Your task to perform on an android device: move a message to another label in the gmail app Image 0: 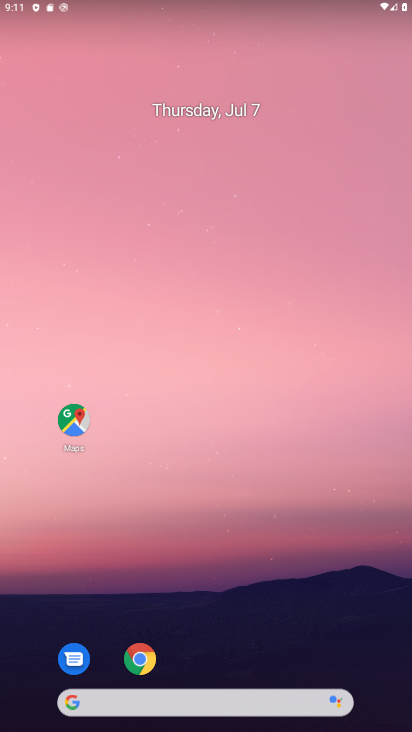
Step 0: drag from (250, 556) to (319, 6)
Your task to perform on an android device: move a message to another label in the gmail app Image 1: 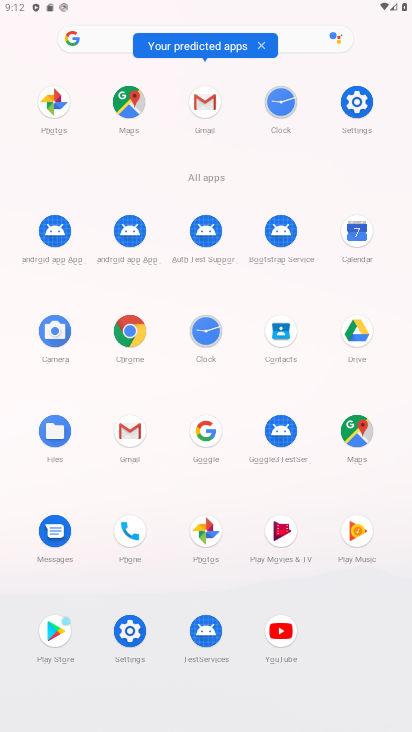
Step 1: click (207, 112)
Your task to perform on an android device: move a message to another label in the gmail app Image 2: 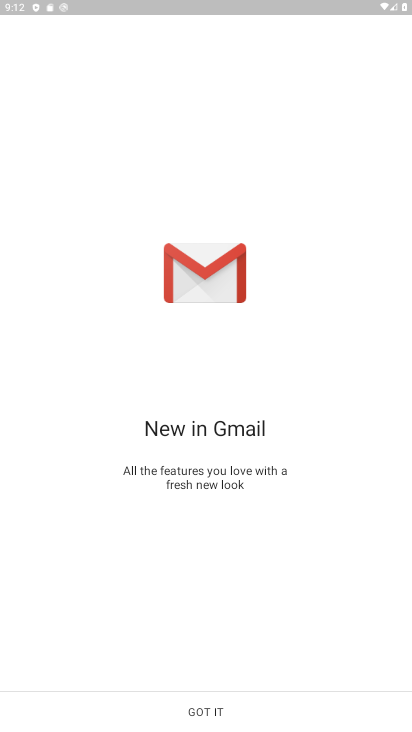
Step 2: click (258, 707)
Your task to perform on an android device: move a message to another label in the gmail app Image 3: 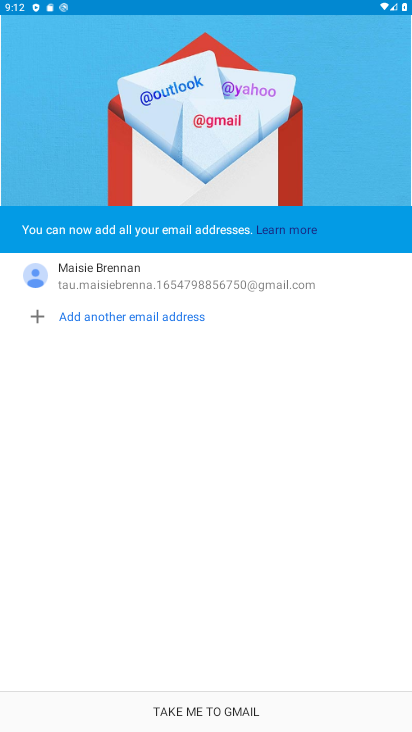
Step 3: click (258, 707)
Your task to perform on an android device: move a message to another label in the gmail app Image 4: 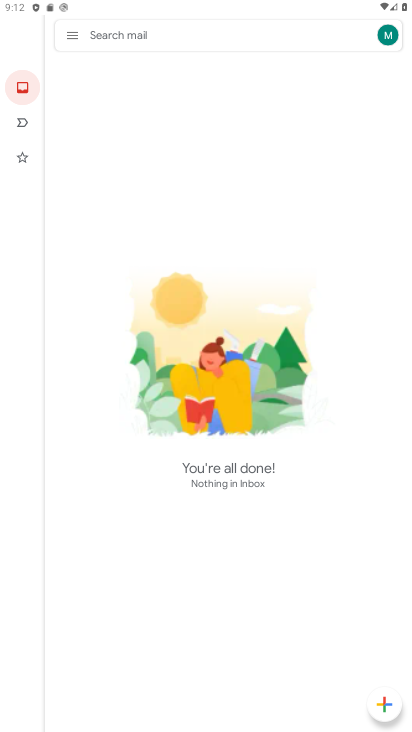
Step 4: click (70, 39)
Your task to perform on an android device: move a message to another label in the gmail app Image 5: 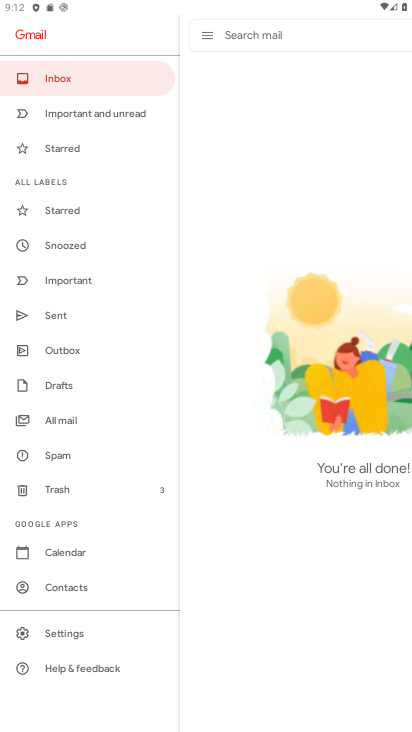
Step 5: click (81, 420)
Your task to perform on an android device: move a message to another label in the gmail app Image 6: 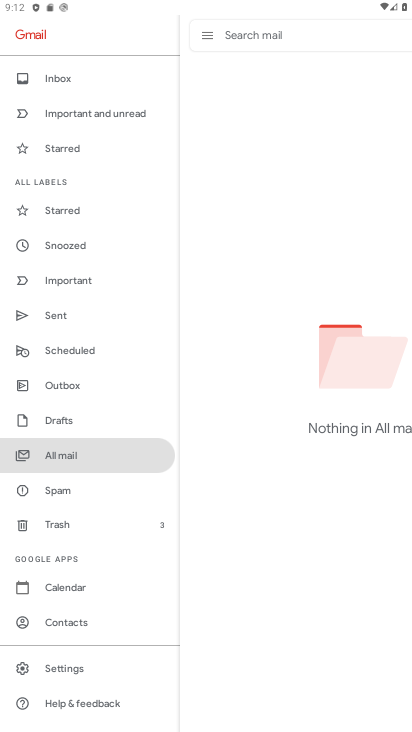
Step 6: click (249, 201)
Your task to perform on an android device: move a message to another label in the gmail app Image 7: 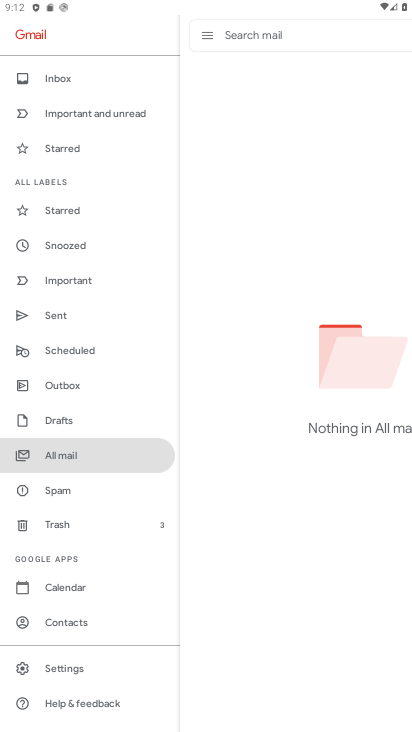
Step 7: task complete